Your task to perform on an android device: Set the phone to "Do not disturb". Image 0: 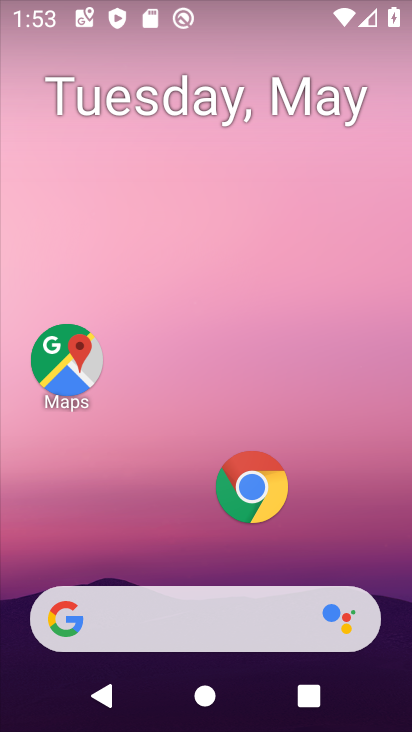
Step 0: drag from (226, 566) to (170, 72)
Your task to perform on an android device: Set the phone to "Do not disturb". Image 1: 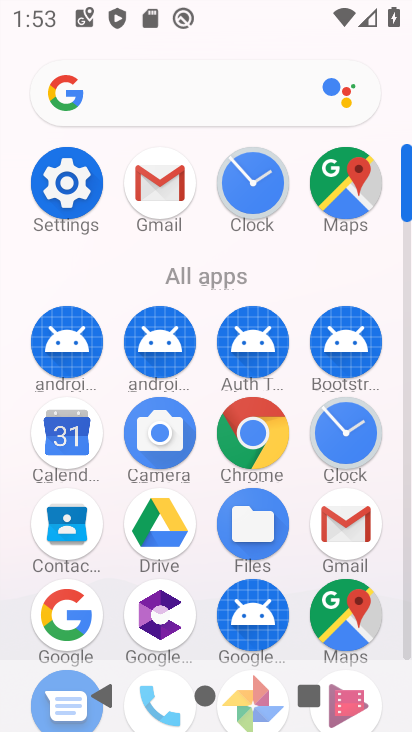
Step 1: click (68, 182)
Your task to perform on an android device: Set the phone to "Do not disturb". Image 2: 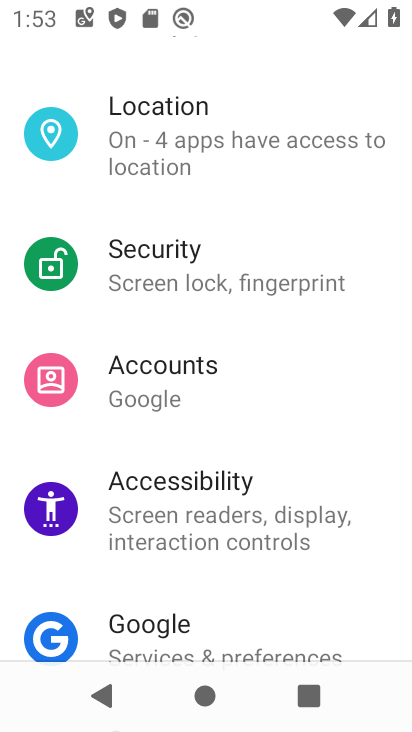
Step 2: drag from (162, 156) to (163, 592)
Your task to perform on an android device: Set the phone to "Do not disturb". Image 3: 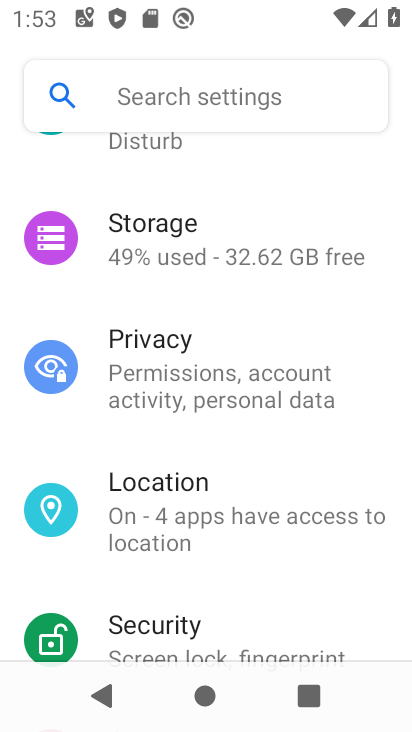
Step 3: drag from (183, 289) to (182, 689)
Your task to perform on an android device: Set the phone to "Do not disturb". Image 4: 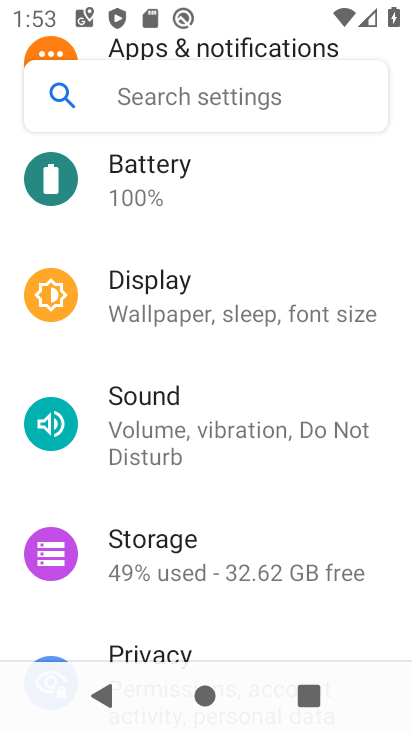
Step 4: click (161, 423)
Your task to perform on an android device: Set the phone to "Do not disturb". Image 5: 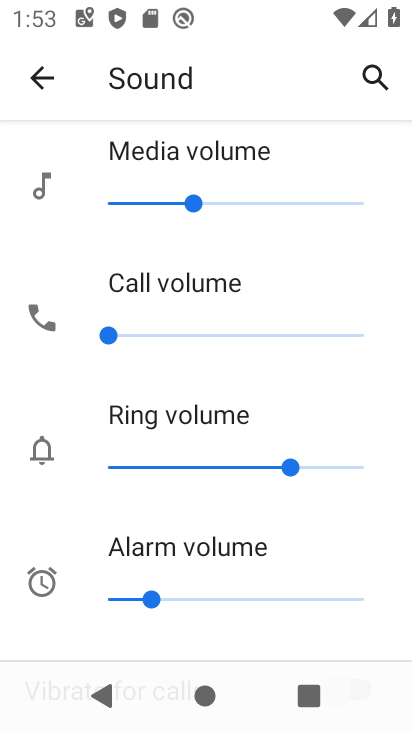
Step 5: drag from (228, 591) to (225, 379)
Your task to perform on an android device: Set the phone to "Do not disturb". Image 6: 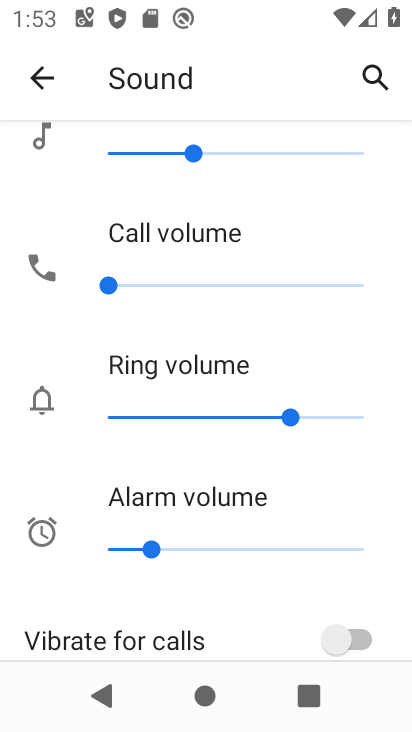
Step 6: drag from (207, 597) to (196, 269)
Your task to perform on an android device: Set the phone to "Do not disturb". Image 7: 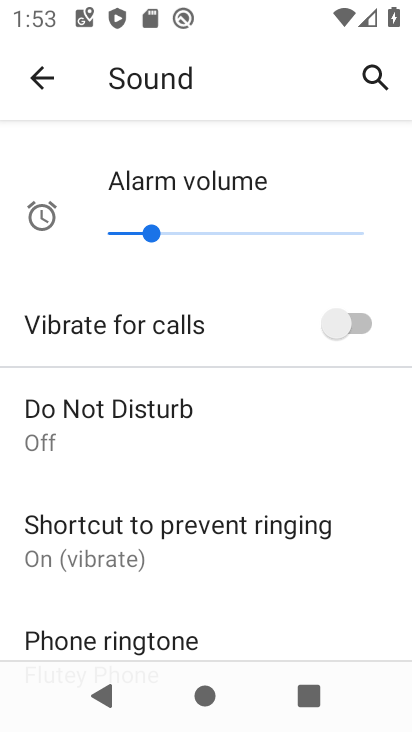
Step 7: click (137, 435)
Your task to perform on an android device: Set the phone to "Do not disturb". Image 8: 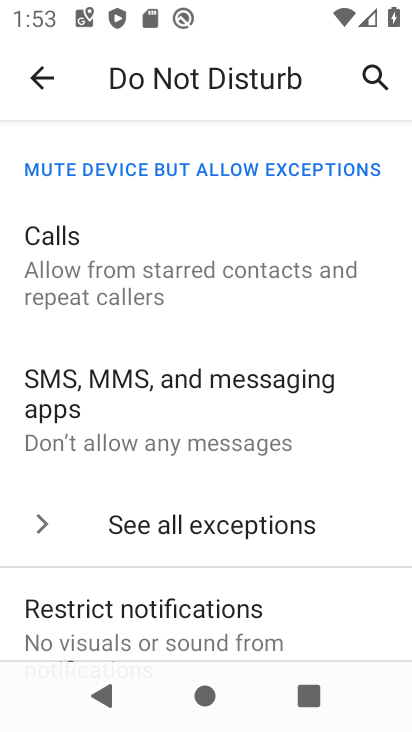
Step 8: drag from (144, 633) to (134, 355)
Your task to perform on an android device: Set the phone to "Do not disturb". Image 9: 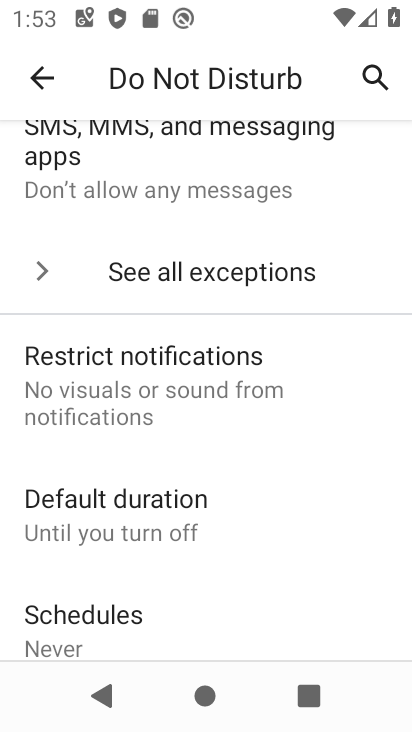
Step 9: drag from (151, 580) to (163, 246)
Your task to perform on an android device: Set the phone to "Do not disturb". Image 10: 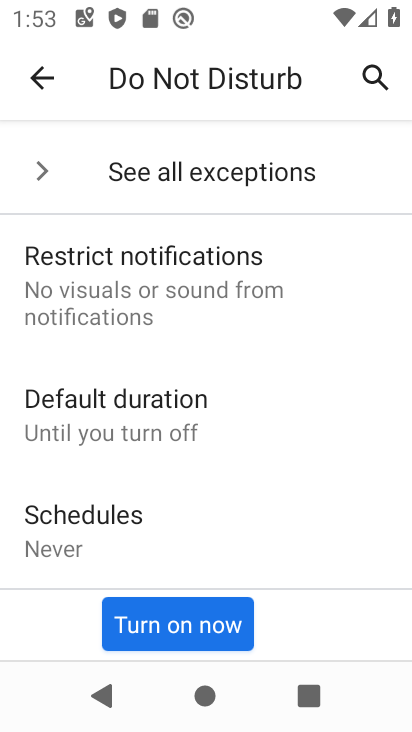
Step 10: click (142, 618)
Your task to perform on an android device: Set the phone to "Do not disturb". Image 11: 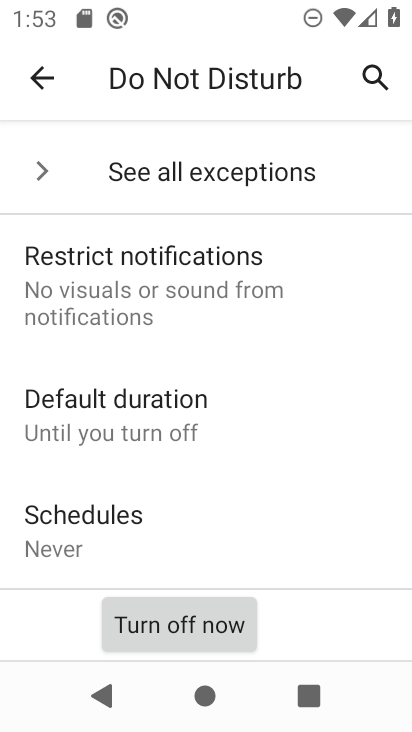
Step 11: task complete